Your task to perform on an android device: Go to privacy settings Image 0: 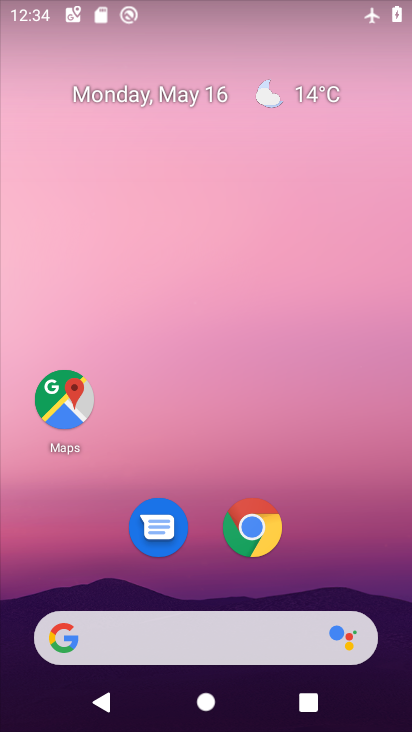
Step 0: drag from (215, 587) to (376, 11)
Your task to perform on an android device: Go to privacy settings Image 1: 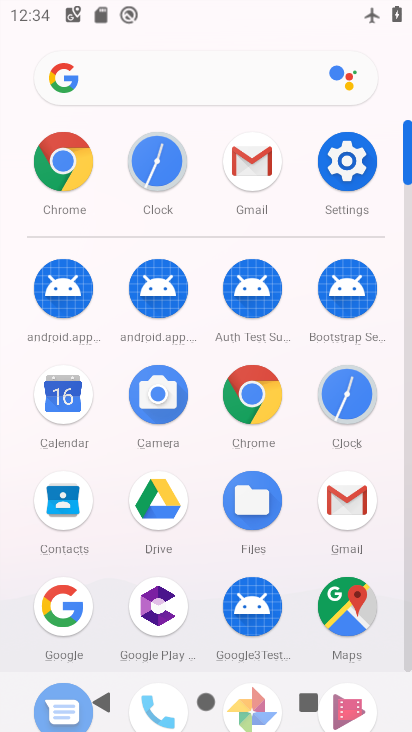
Step 1: click (347, 174)
Your task to perform on an android device: Go to privacy settings Image 2: 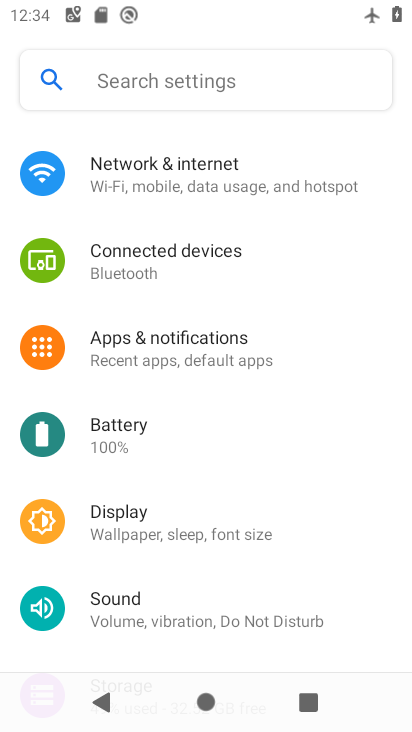
Step 2: drag from (202, 548) to (279, 164)
Your task to perform on an android device: Go to privacy settings Image 3: 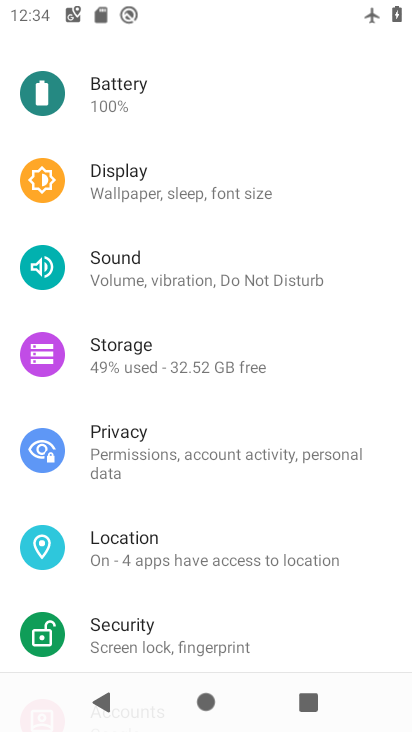
Step 3: click (195, 478)
Your task to perform on an android device: Go to privacy settings Image 4: 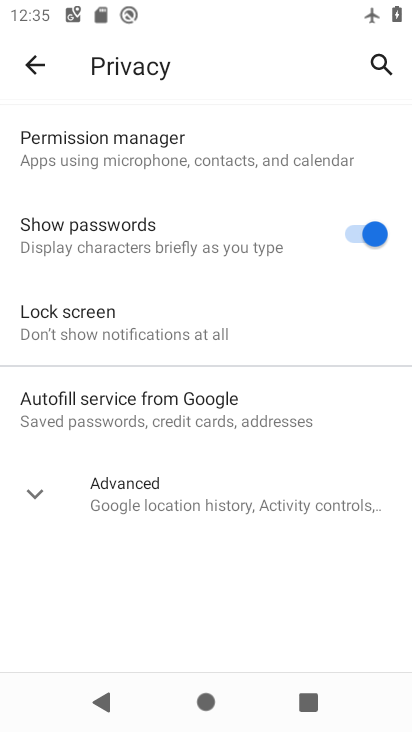
Step 4: task complete